Your task to perform on an android device: move an email to a new category in the gmail app Image 0: 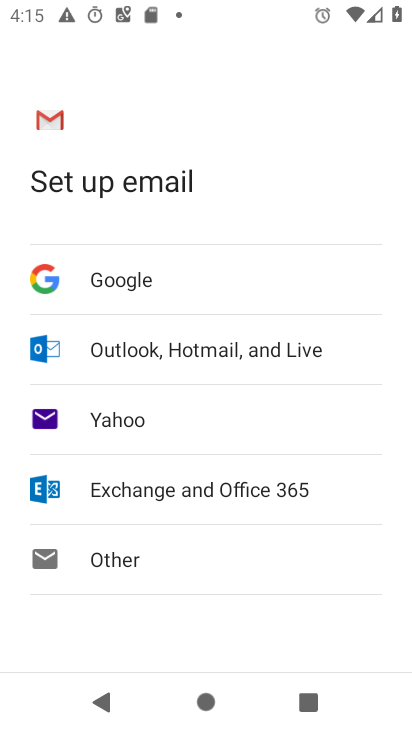
Step 0: drag from (341, 514) to (336, 98)
Your task to perform on an android device: move an email to a new category in the gmail app Image 1: 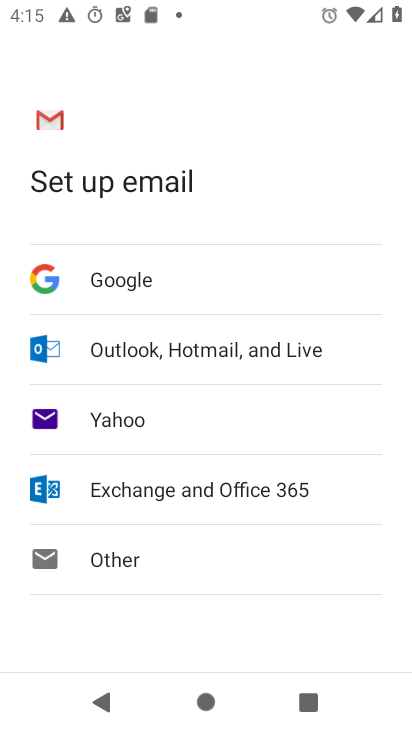
Step 1: press home button
Your task to perform on an android device: move an email to a new category in the gmail app Image 2: 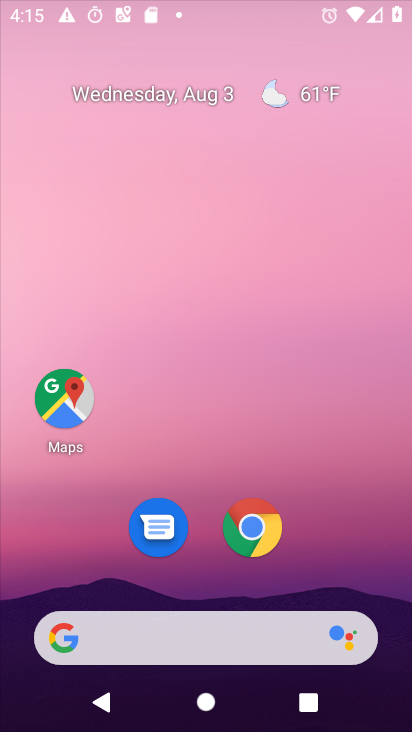
Step 2: drag from (311, 524) to (329, 88)
Your task to perform on an android device: move an email to a new category in the gmail app Image 3: 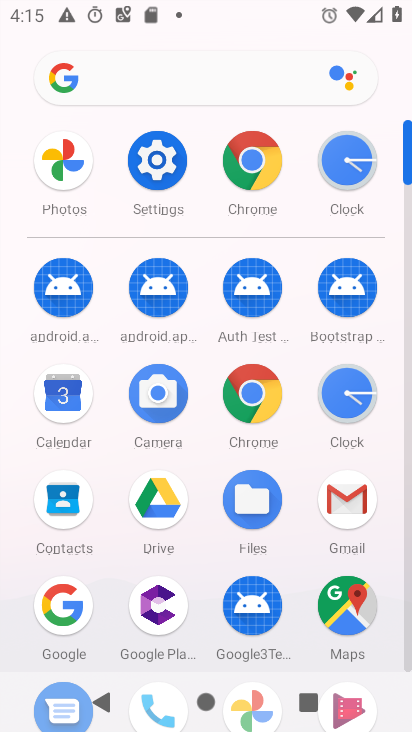
Step 3: click (361, 495)
Your task to perform on an android device: move an email to a new category in the gmail app Image 4: 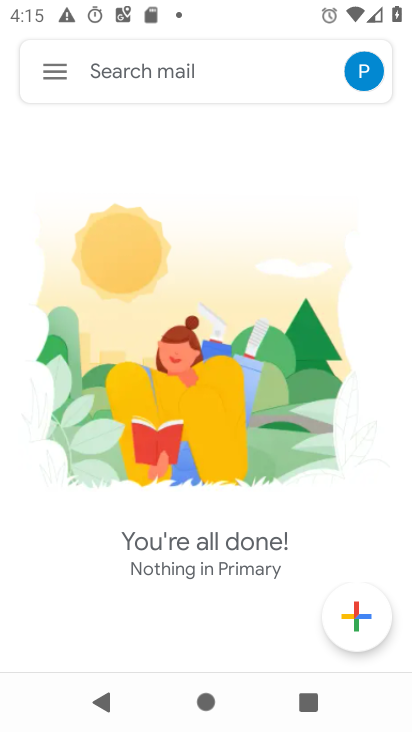
Step 4: click (50, 60)
Your task to perform on an android device: move an email to a new category in the gmail app Image 5: 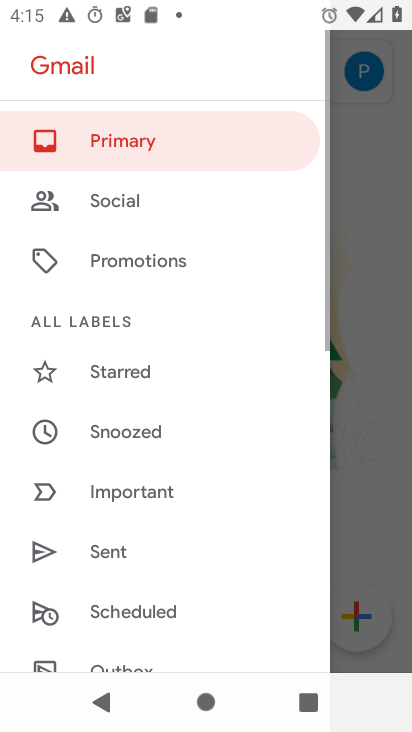
Step 5: drag from (117, 597) to (263, 171)
Your task to perform on an android device: move an email to a new category in the gmail app Image 6: 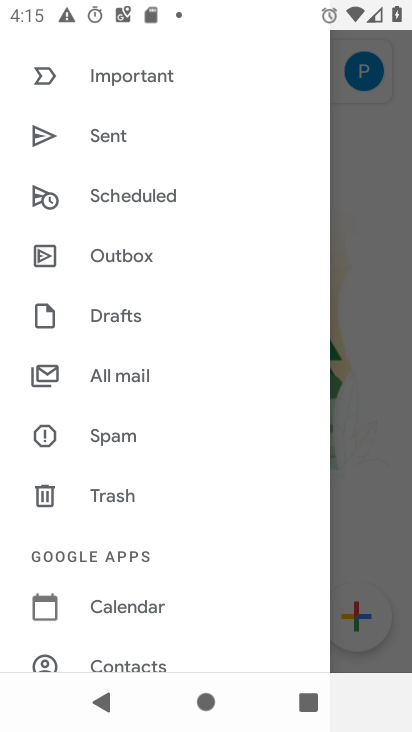
Step 6: drag from (123, 629) to (253, 344)
Your task to perform on an android device: move an email to a new category in the gmail app Image 7: 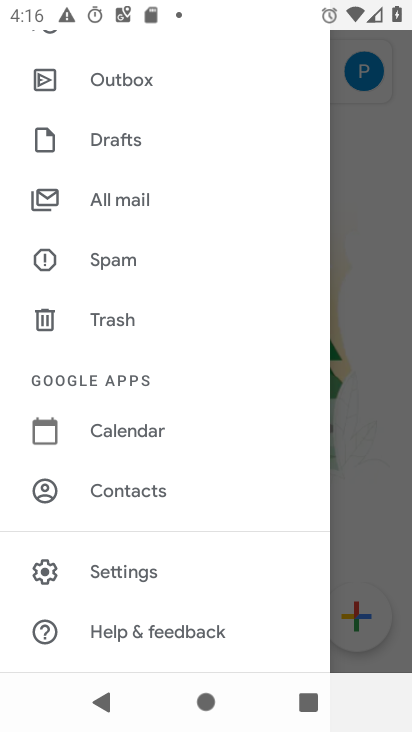
Step 7: click (124, 211)
Your task to perform on an android device: move an email to a new category in the gmail app Image 8: 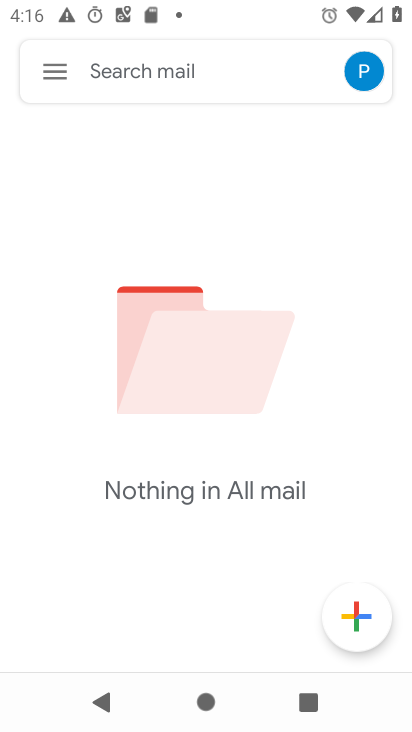
Step 8: task complete